Your task to perform on an android device: open device folders in google photos Image 0: 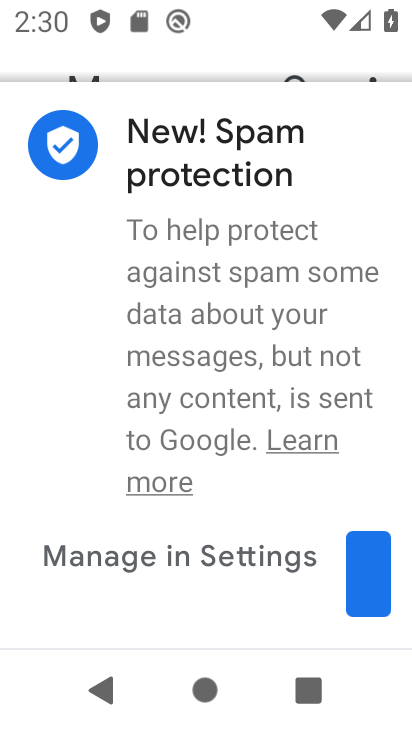
Step 0: press home button
Your task to perform on an android device: open device folders in google photos Image 1: 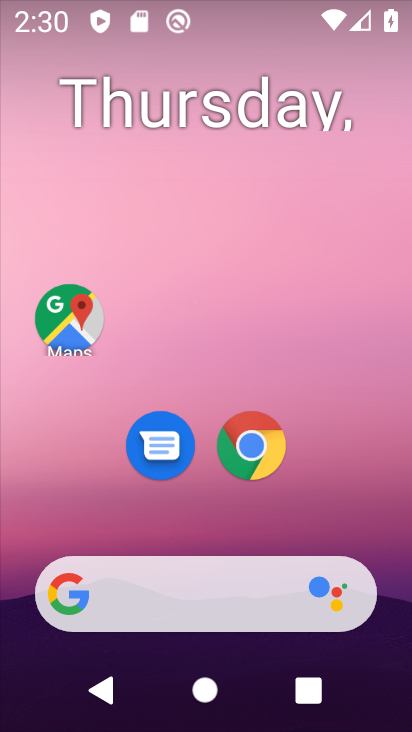
Step 1: drag from (336, 418) to (281, 22)
Your task to perform on an android device: open device folders in google photos Image 2: 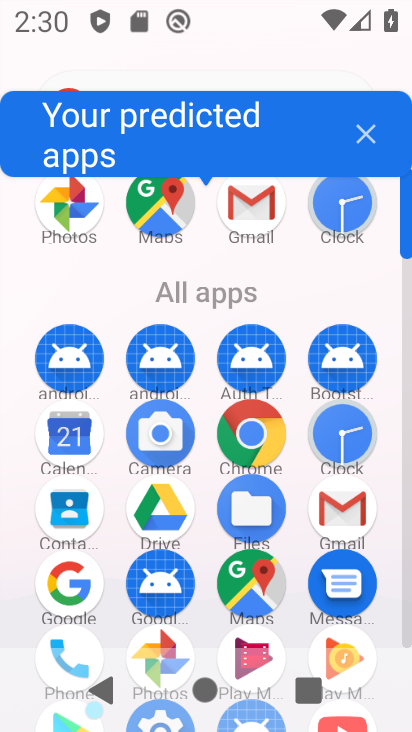
Step 2: click (72, 202)
Your task to perform on an android device: open device folders in google photos Image 3: 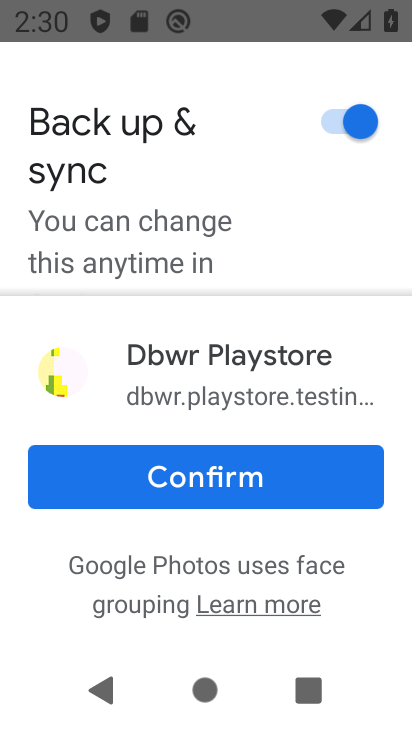
Step 3: click (196, 483)
Your task to perform on an android device: open device folders in google photos Image 4: 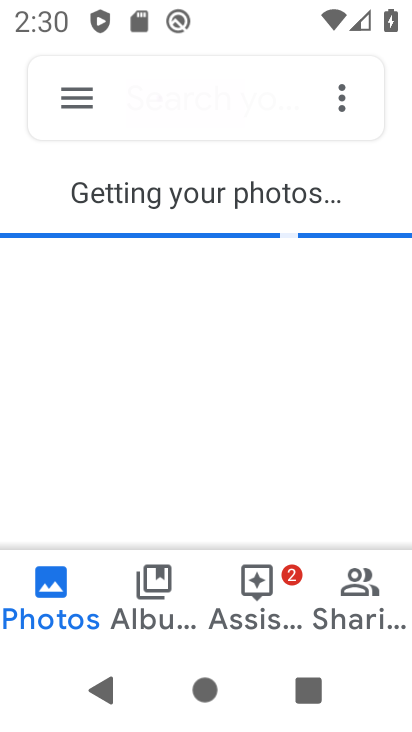
Step 4: click (83, 112)
Your task to perform on an android device: open device folders in google photos Image 5: 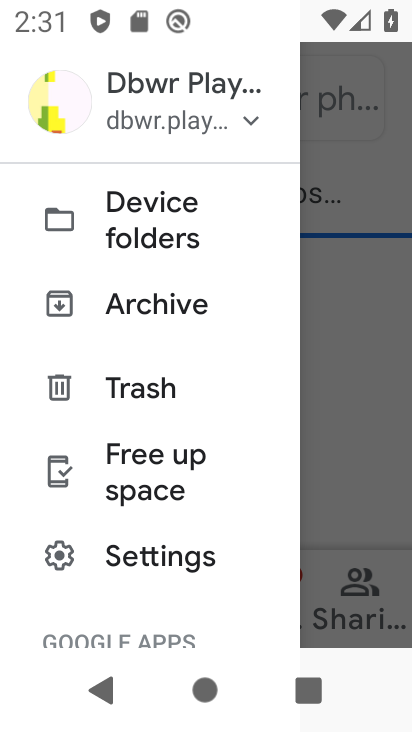
Step 5: click (139, 222)
Your task to perform on an android device: open device folders in google photos Image 6: 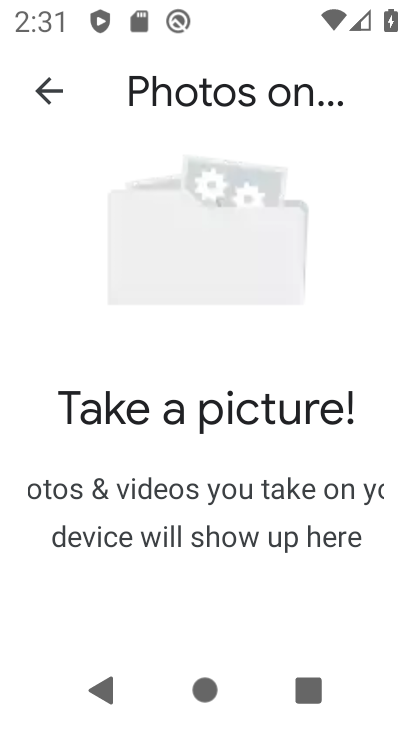
Step 6: task complete